Your task to perform on an android device: toggle notification dots Image 0: 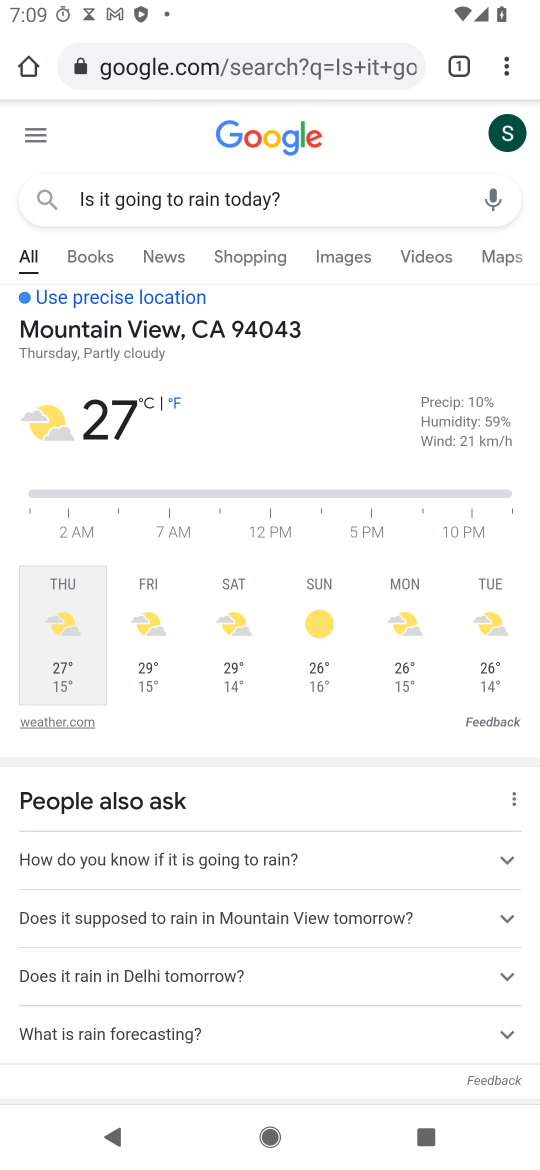
Step 0: press home button
Your task to perform on an android device: toggle notification dots Image 1: 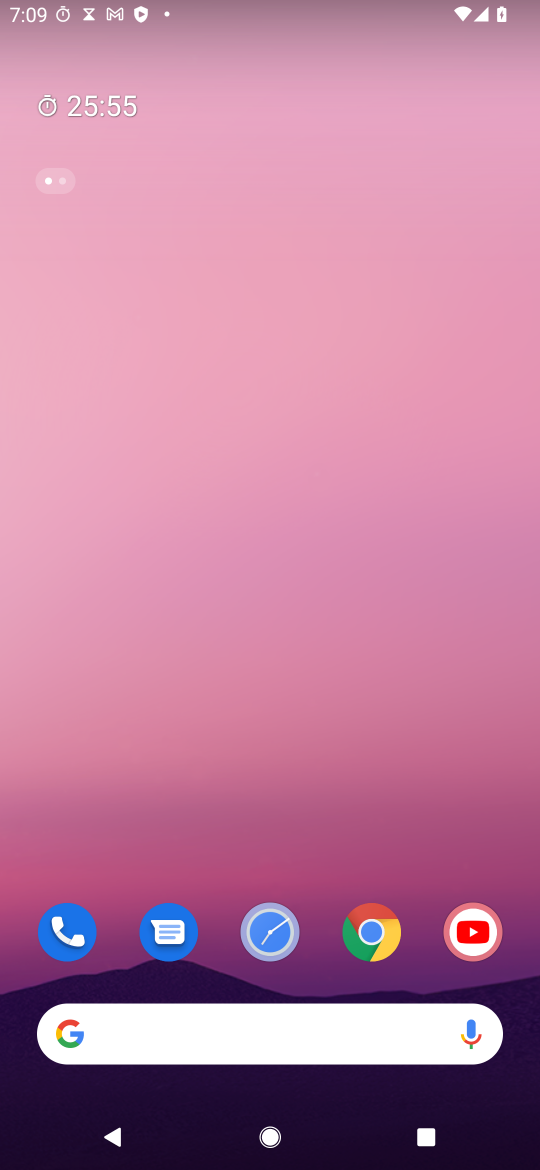
Step 1: drag from (375, 866) to (170, 39)
Your task to perform on an android device: toggle notification dots Image 2: 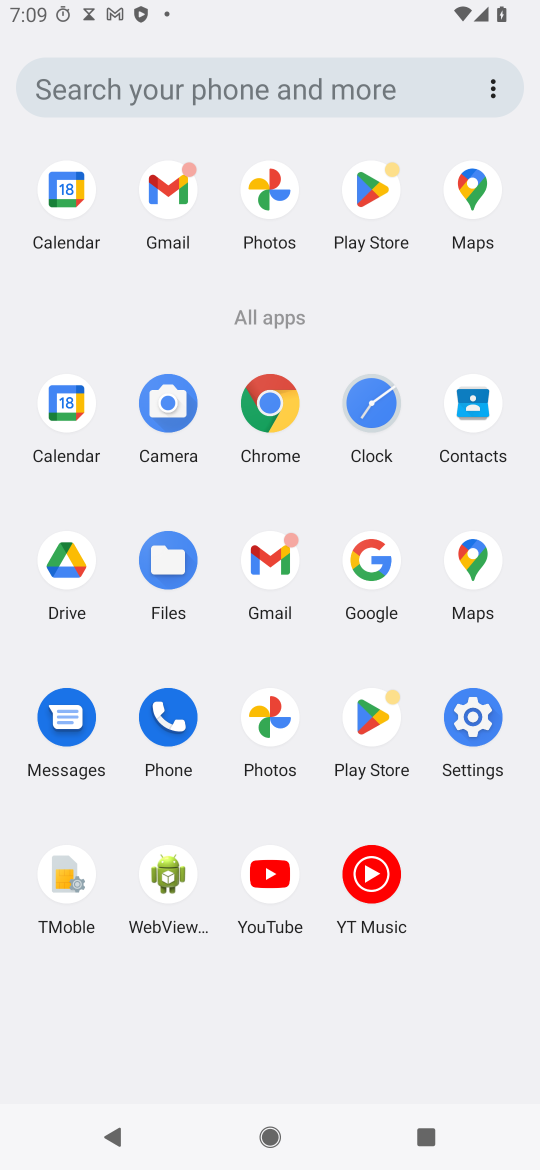
Step 2: click (472, 720)
Your task to perform on an android device: toggle notification dots Image 3: 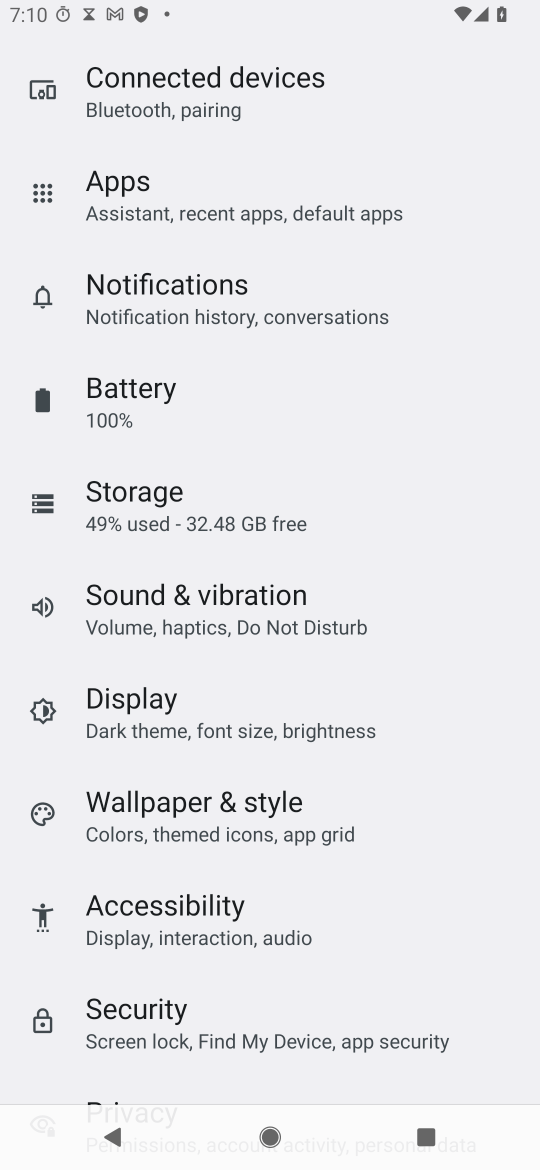
Step 3: click (209, 317)
Your task to perform on an android device: toggle notification dots Image 4: 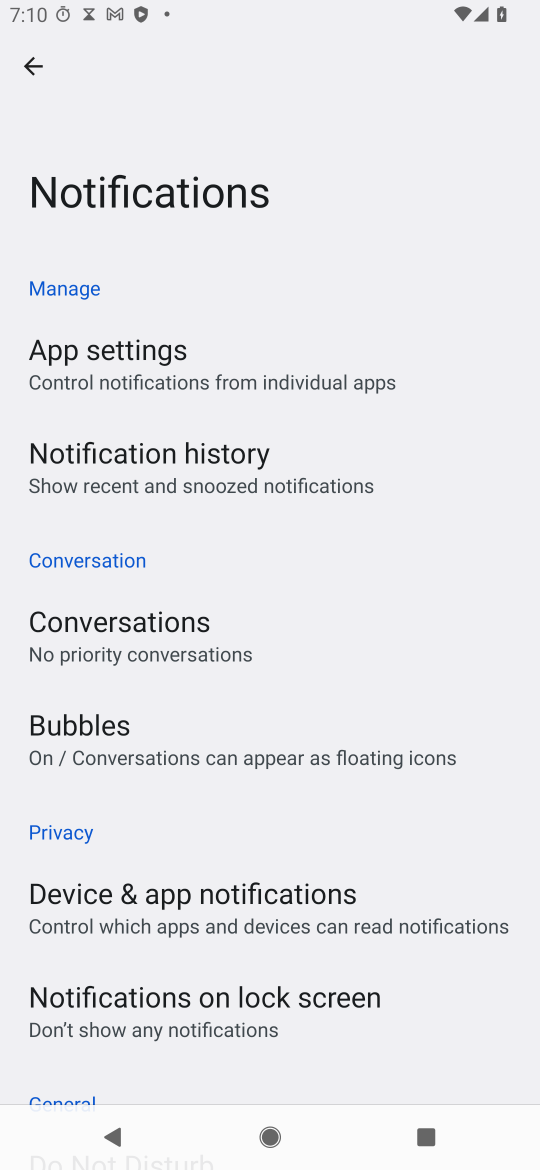
Step 4: drag from (425, 878) to (409, 392)
Your task to perform on an android device: toggle notification dots Image 5: 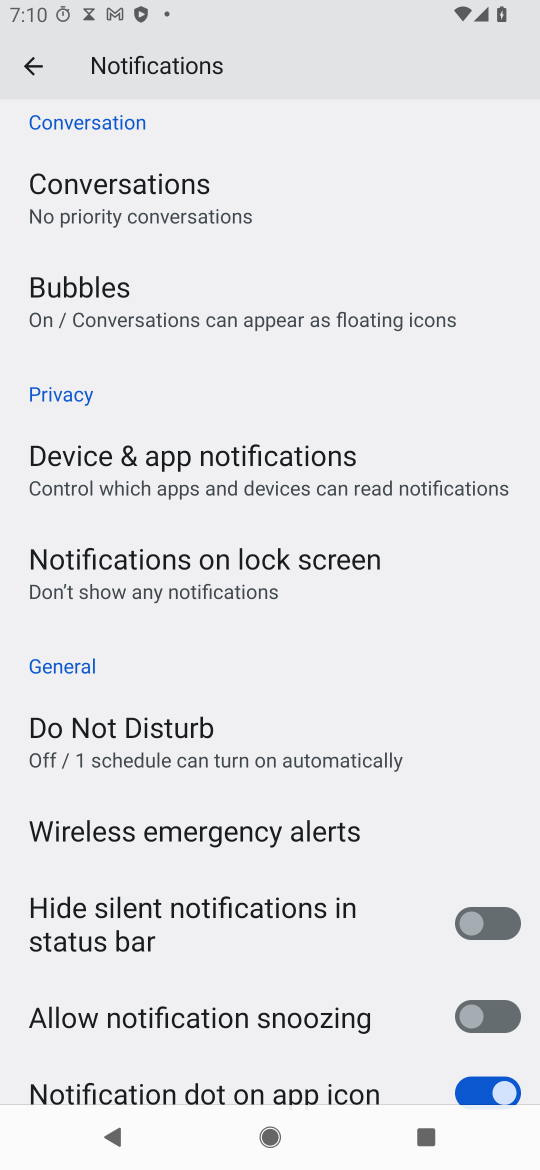
Step 5: click (352, 576)
Your task to perform on an android device: toggle notification dots Image 6: 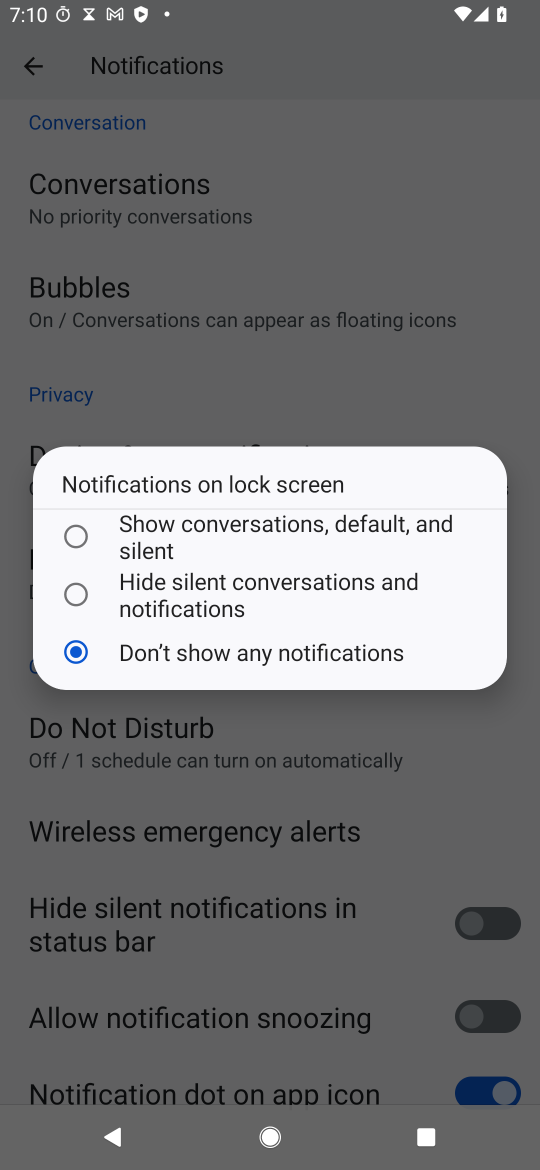
Step 6: click (420, 411)
Your task to perform on an android device: toggle notification dots Image 7: 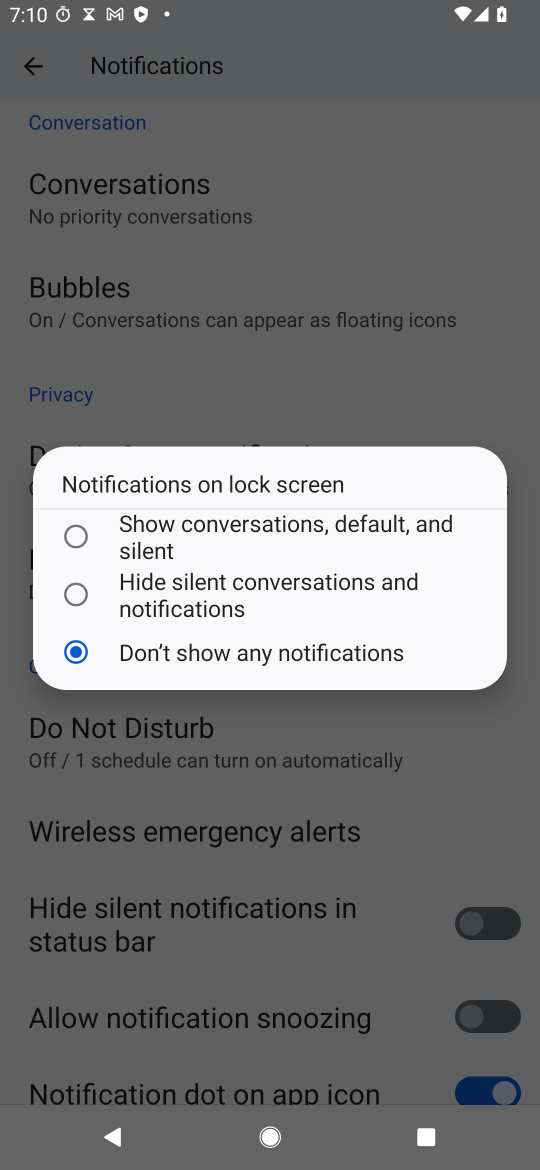
Step 7: click (138, 800)
Your task to perform on an android device: toggle notification dots Image 8: 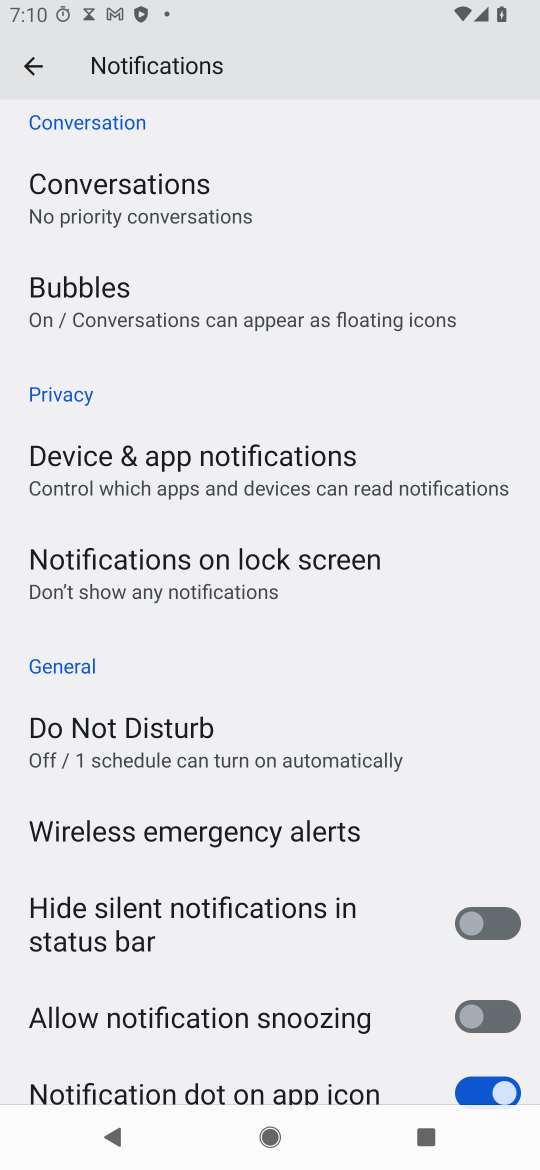
Step 8: drag from (129, 803) to (236, 478)
Your task to perform on an android device: toggle notification dots Image 9: 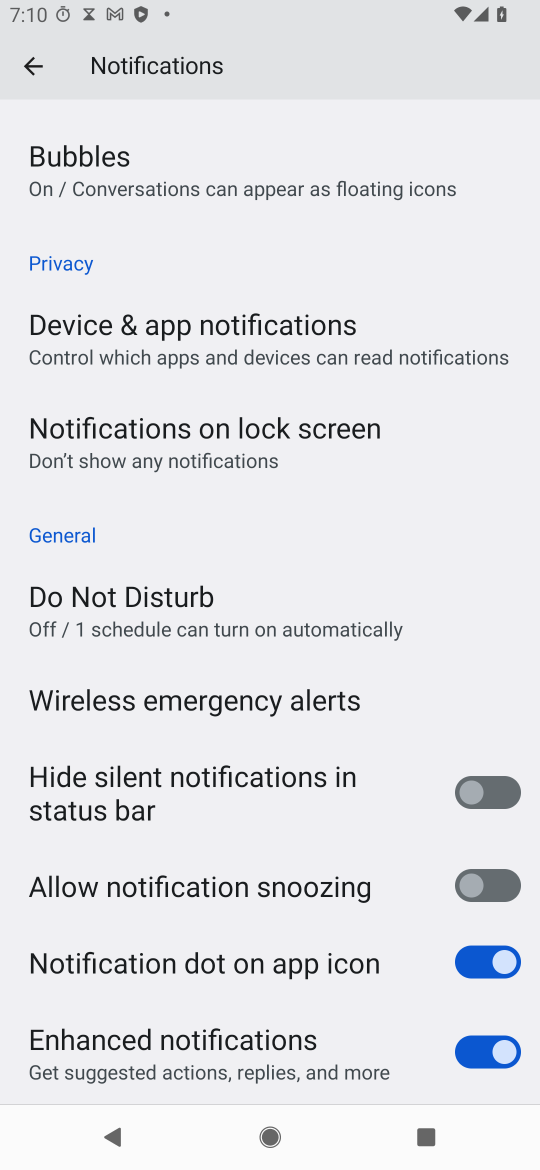
Step 9: click (507, 951)
Your task to perform on an android device: toggle notification dots Image 10: 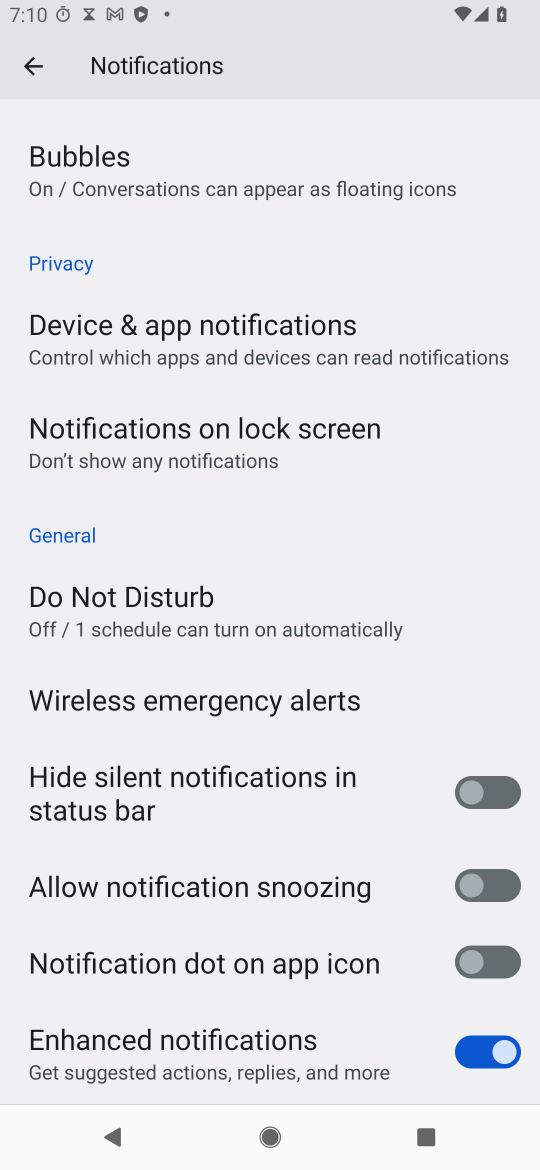
Step 10: task complete